Your task to perform on an android device: Search for seafood restaurants on Google Maps Image 0: 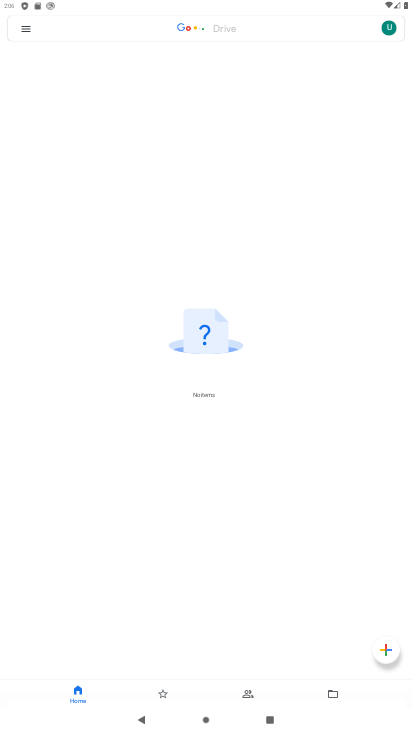
Step 0: click (143, 653)
Your task to perform on an android device: Search for seafood restaurants on Google Maps Image 1: 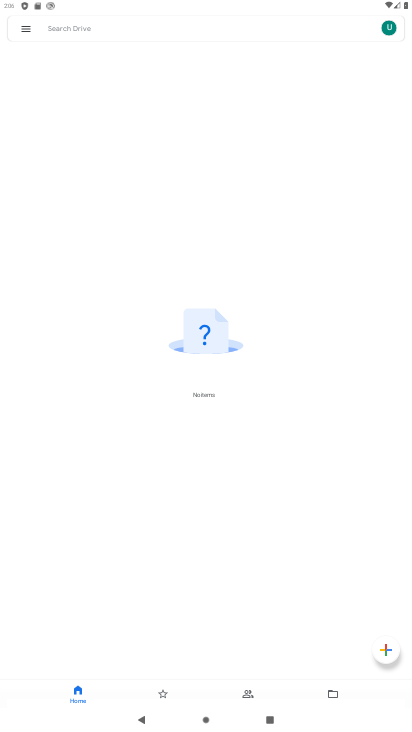
Step 1: press home button
Your task to perform on an android device: Search for seafood restaurants on Google Maps Image 2: 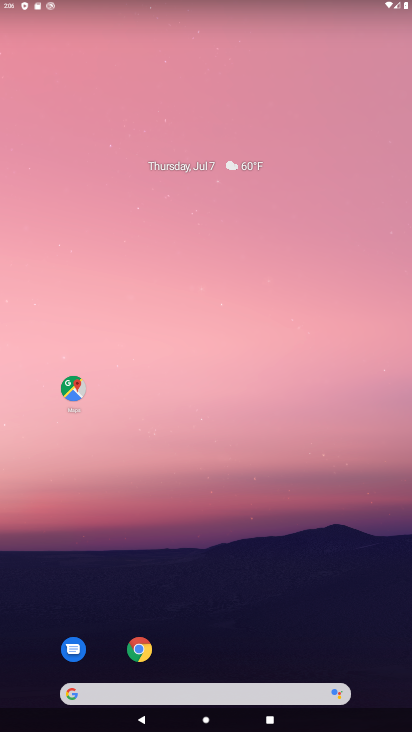
Step 2: drag from (184, 649) to (249, 125)
Your task to perform on an android device: Search for seafood restaurants on Google Maps Image 3: 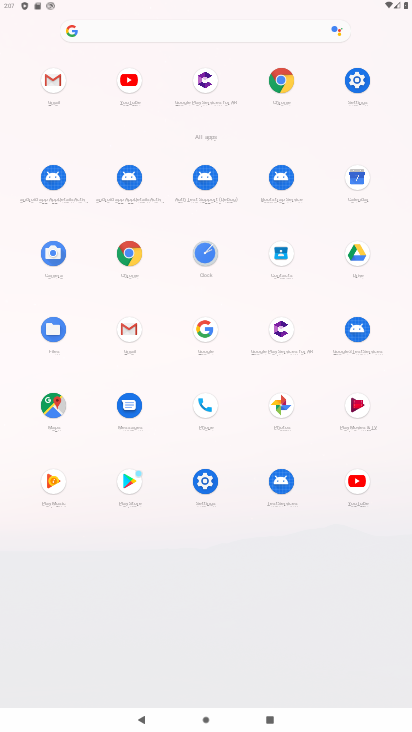
Step 3: click (52, 394)
Your task to perform on an android device: Search for seafood restaurants on Google Maps Image 4: 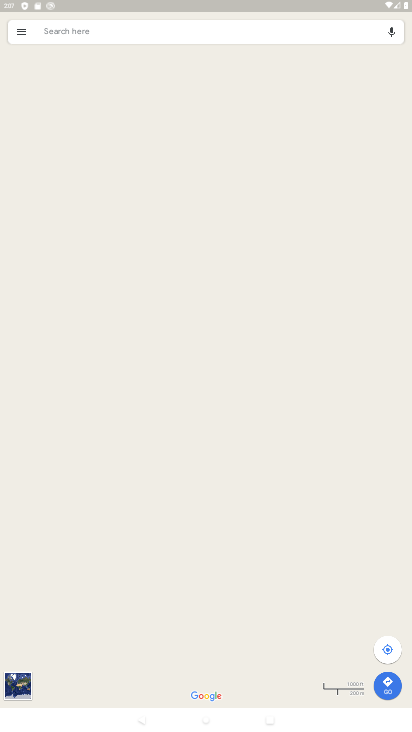
Step 4: click (95, 27)
Your task to perform on an android device: Search for seafood restaurants on Google Maps Image 5: 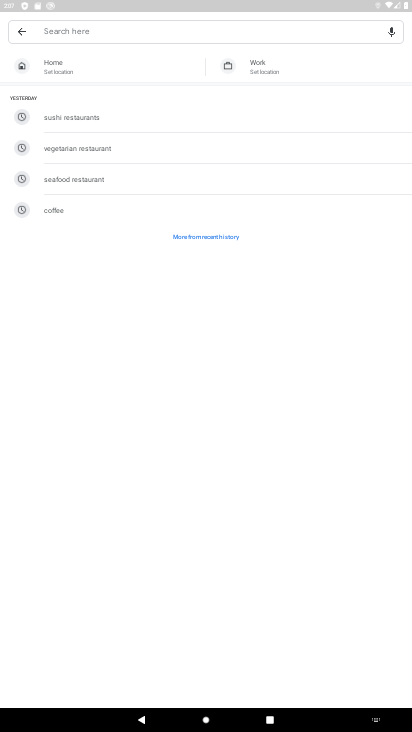
Step 5: type "seafood restaurants"
Your task to perform on an android device: Search for seafood restaurants on Google Maps Image 6: 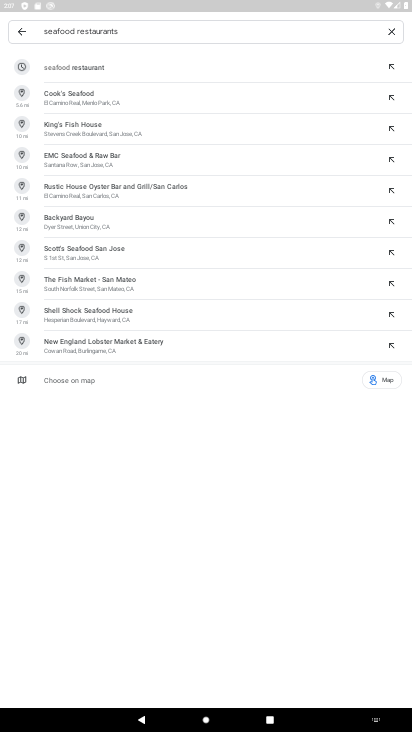
Step 6: click (122, 64)
Your task to perform on an android device: Search for seafood restaurants on Google Maps Image 7: 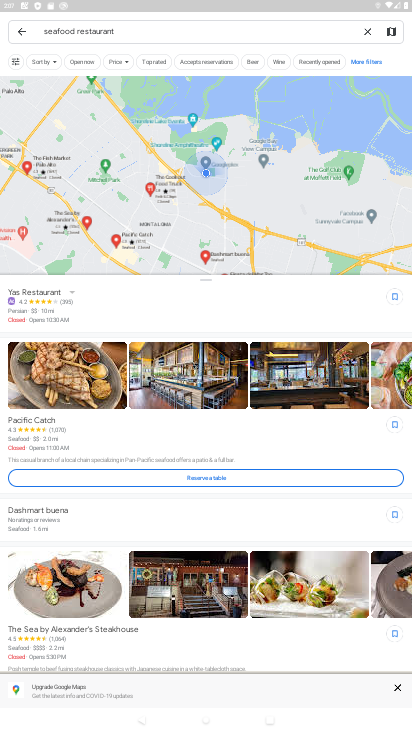
Step 7: task complete